Your task to perform on an android device: Open maps Image 0: 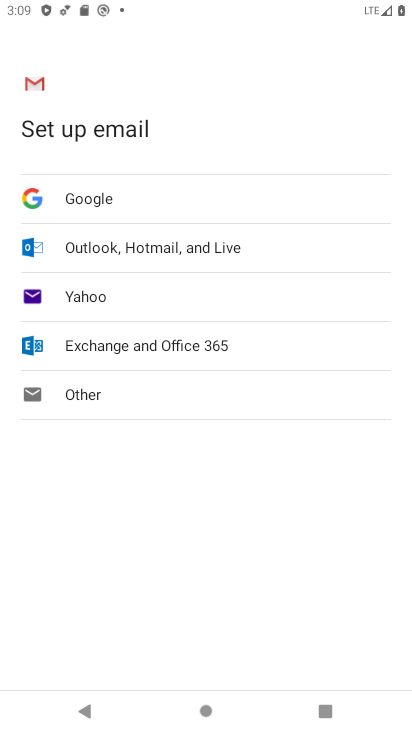
Step 0: press home button
Your task to perform on an android device: Open maps Image 1: 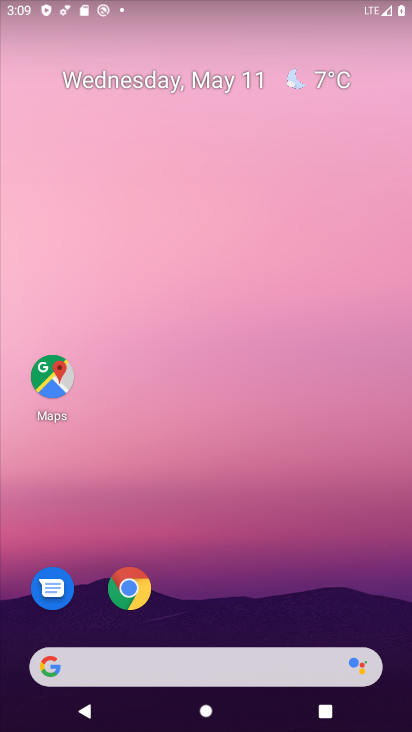
Step 1: drag from (226, 729) to (224, 61)
Your task to perform on an android device: Open maps Image 2: 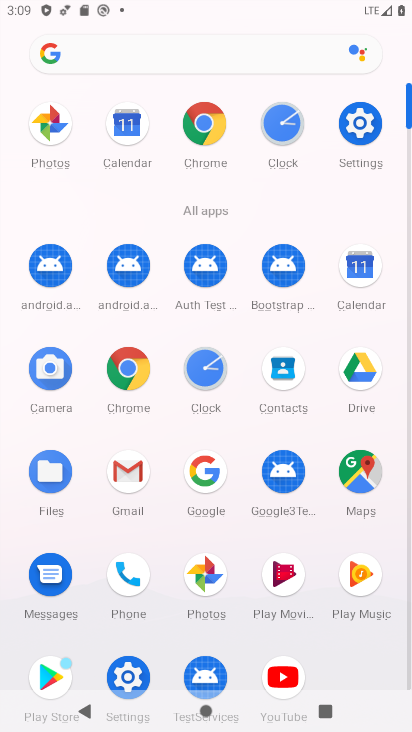
Step 2: click (354, 477)
Your task to perform on an android device: Open maps Image 3: 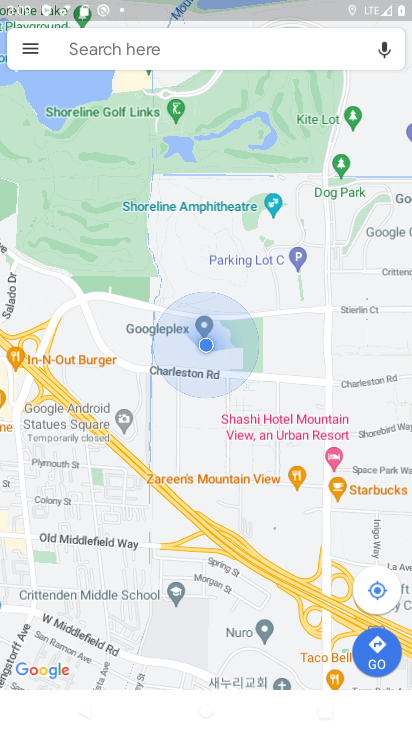
Step 3: task complete